Your task to perform on an android device: read, delete, or share a saved page in the chrome app Image 0: 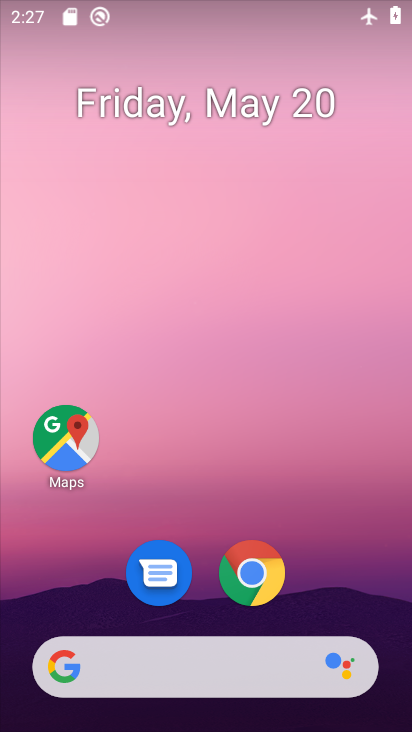
Step 0: click (242, 571)
Your task to perform on an android device: read, delete, or share a saved page in the chrome app Image 1: 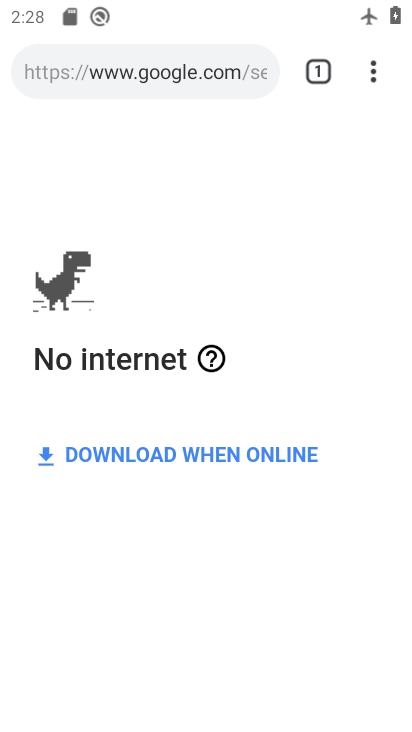
Step 1: click (370, 65)
Your task to perform on an android device: read, delete, or share a saved page in the chrome app Image 2: 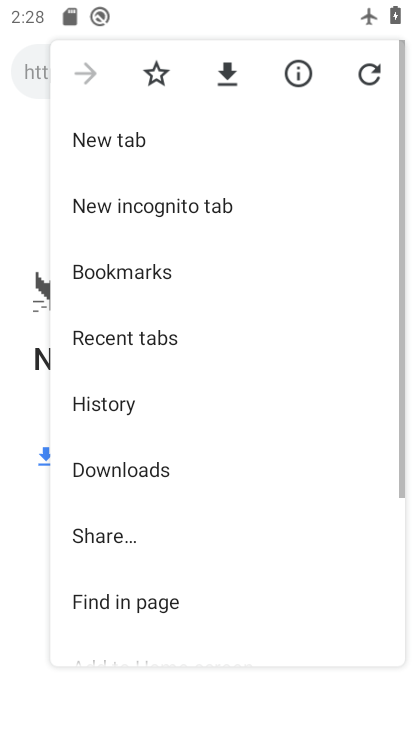
Step 2: drag from (228, 505) to (218, 428)
Your task to perform on an android device: read, delete, or share a saved page in the chrome app Image 3: 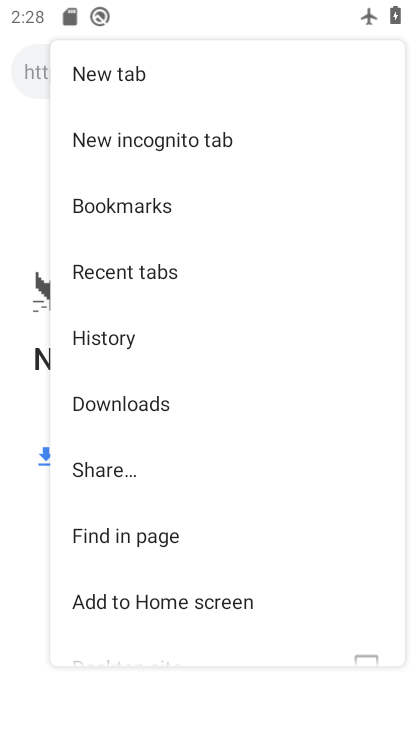
Step 3: click (175, 408)
Your task to perform on an android device: read, delete, or share a saved page in the chrome app Image 4: 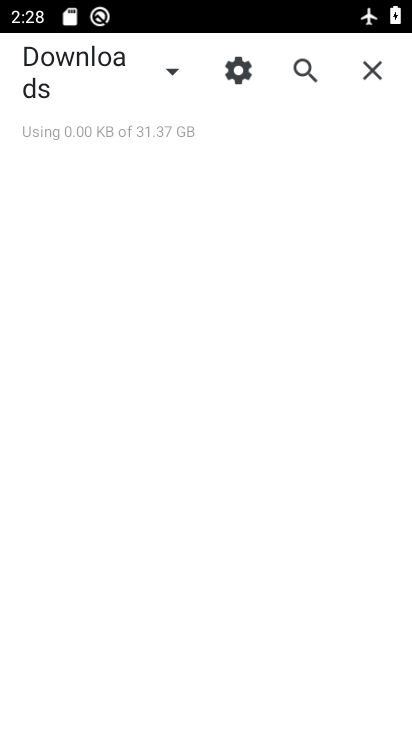
Step 4: click (171, 79)
Your task to perform on an android device: read, delete, or share a saved page in the chrome app Image 5: 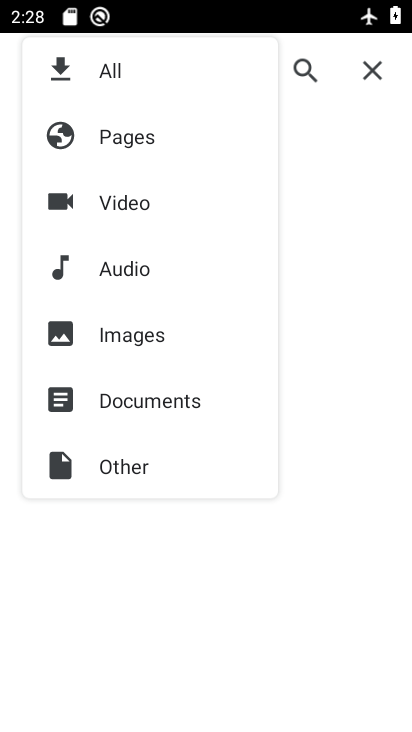
Step 5: click (149, 147)
Your task to perform on an android device: read, delete, or share a saved page in the chrome app Image 6: 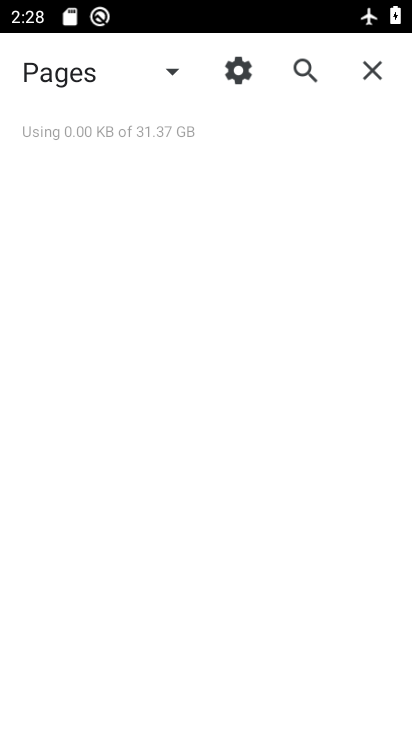
Step 6: task complete